Your task to perform on an android device: turn on the 12-hour format for clock Image 0: 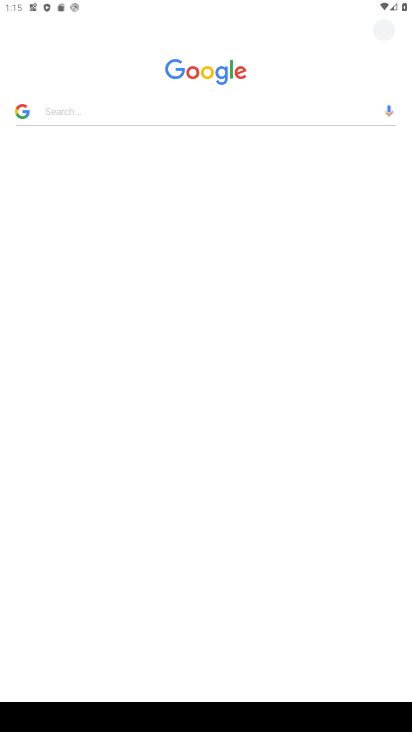
Step 0: press home button
Your task to perform on an android device: turn on the 12-hour format for clock Image 1: 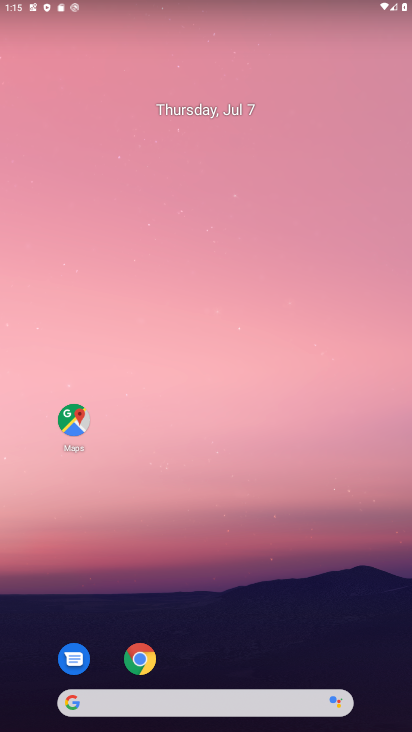
Step 1: drag from (220, 656) to (248, 160)
Your task to perform on an android device: turn on the 12-hour format for clock Image 2: 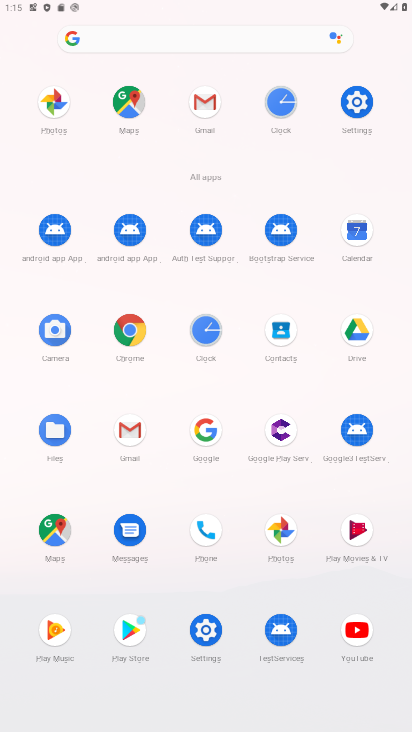
Step 2: click (202, 324)
Your task to perform on an android device: turn on the 12-hour format for clock Image 3: 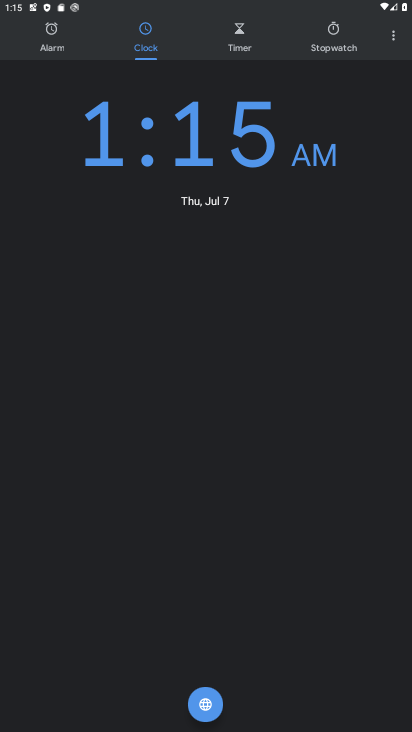
Step 3: click (396, 36)
Your task to perform on an android device: turn on the 12-hour format for clock Image 4: 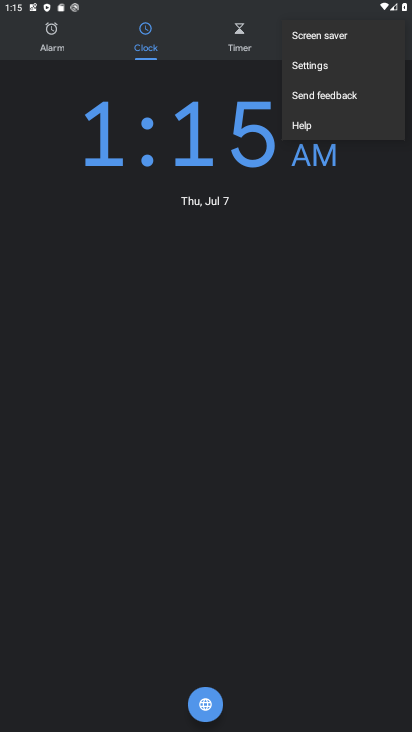
Step 4: click (320, 76)
Your task to perform on an android device: turn on the 12-hour format for clock Image 5: 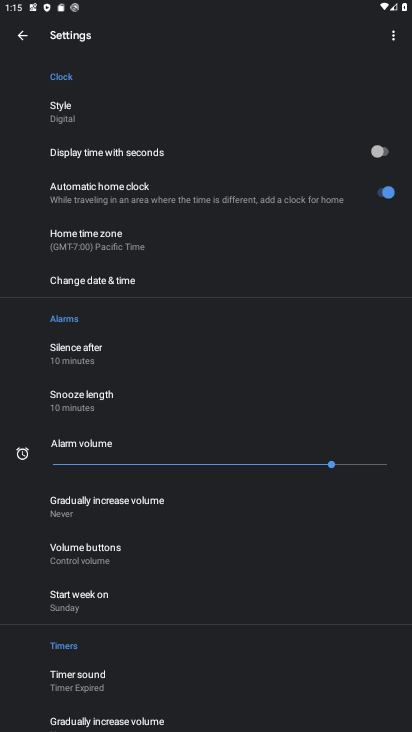
Step 5: click (147, 287)
Your task to perform on an android device: turn on the 12-hour format for clock Image 6: 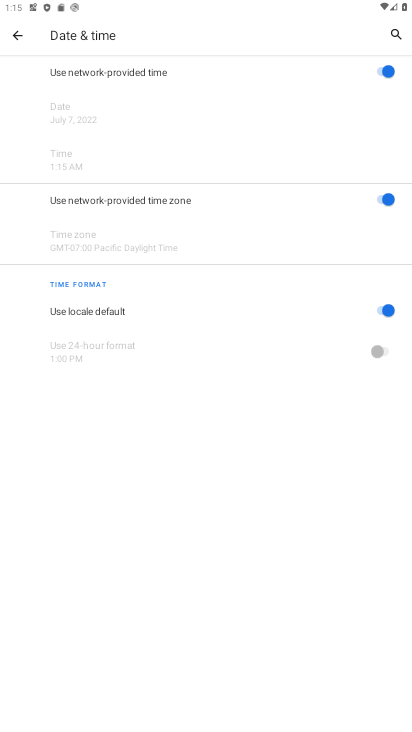
Step 6: task complete